Your task to perform on an android device: read, delete, or share a saved page in the chrome app Image 0: 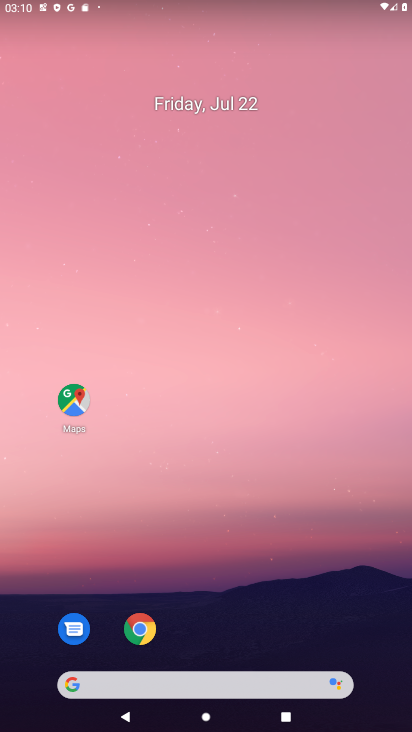
Step 0: click (134, 633)
Your task to perform on an android device: read, delete, or share a saved page in the chrome app Image 1: 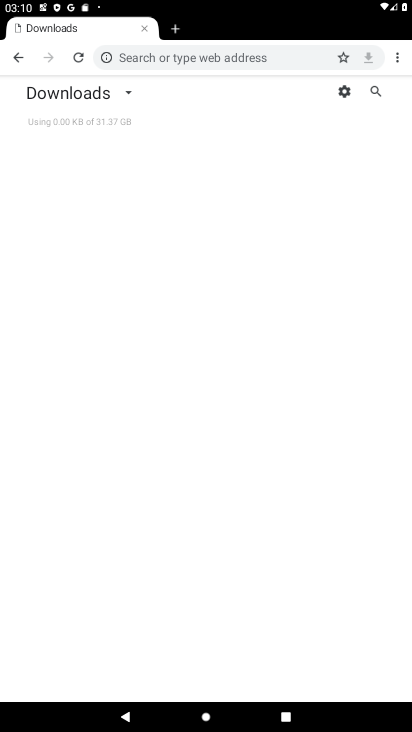
Step 1: click (395, 58)
Your task to perform on an android device: read, delete, or share a saved page in the chrome app Image 2: 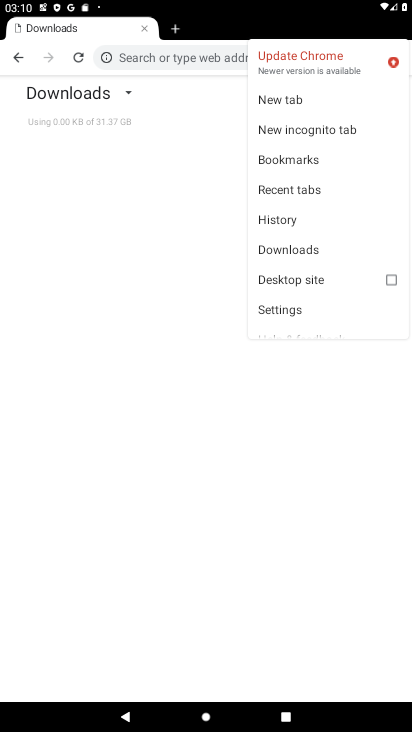
Step 2: click (301, 251)
Your task to perform on an android device: read, delete, or share a saved page in the chrome app Image 3: 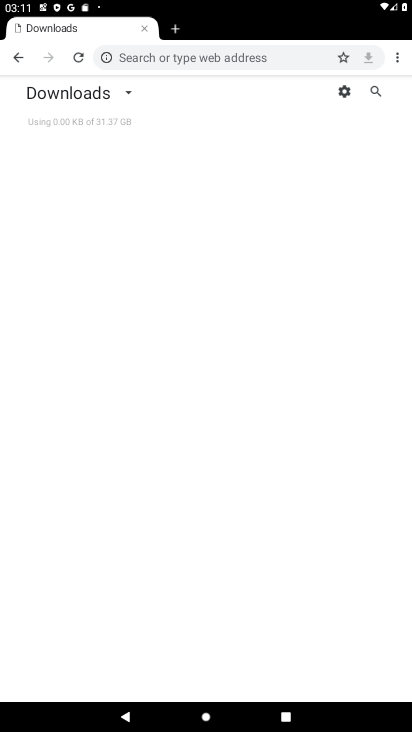
Step 3: task complete